Your task to perform on an android device: manage bookmarks in the chrome app Image 0: 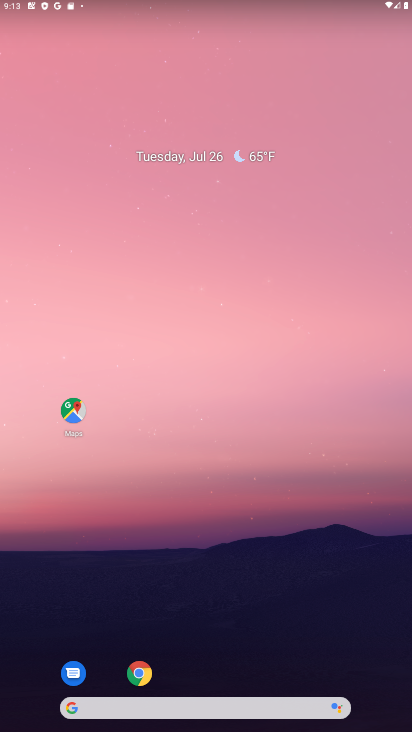
Step 0: click (139, 672)
Your task to perform on an android device: manage bookmarks in the chrome app Image 1: 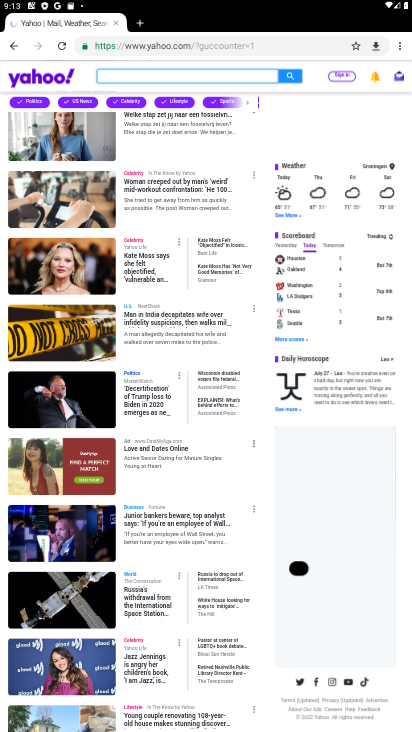
Step 1: click (398, 50)
Your task to perform on an android device: manage bookmarks in the chrome app Image 2: 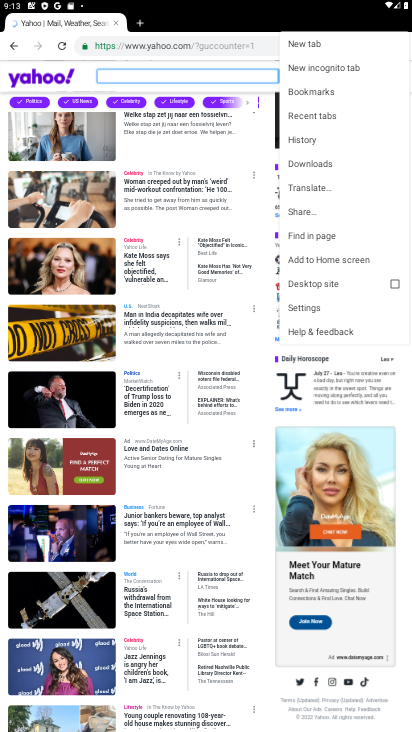
Step 2: click (305, 87)
Your task to perform on an android device: manage bookmarks in the chrome app Image 3: 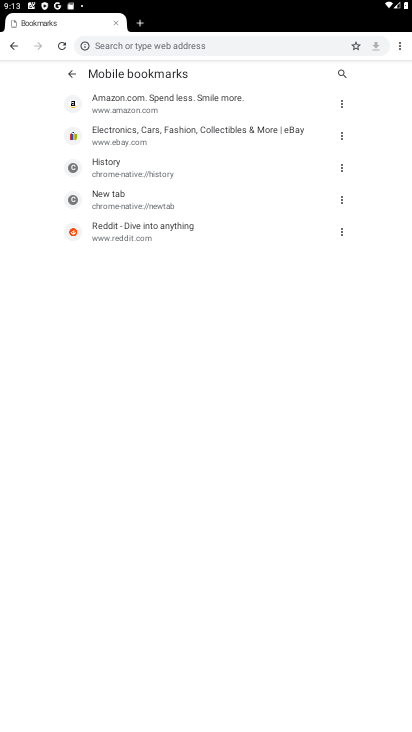
Step 3: click (105, 130)
Your task to perform on an android device: manage bookmarks in the chrome app Image 4: 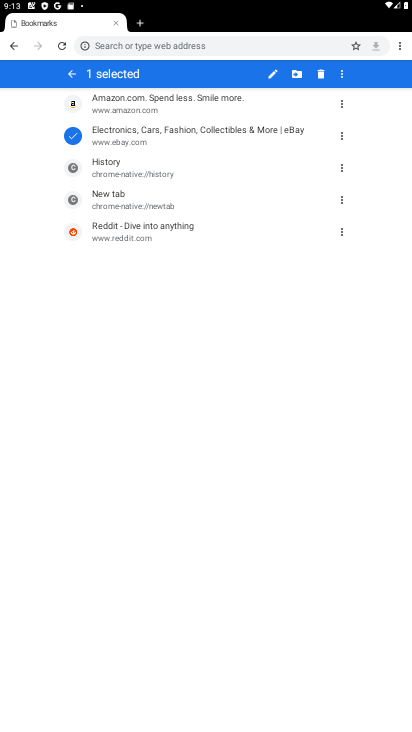
Step 4: click (293, 76)
Your task to perform on an android device: manage bookmarks in the chrome app Image 5: 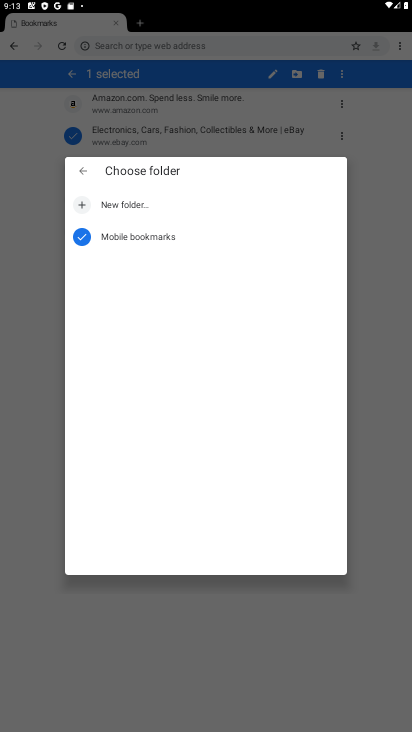
Step 5: click (84, 207)
Your task to perform on an android device: manage bookmarks in the chrome app Image 6: 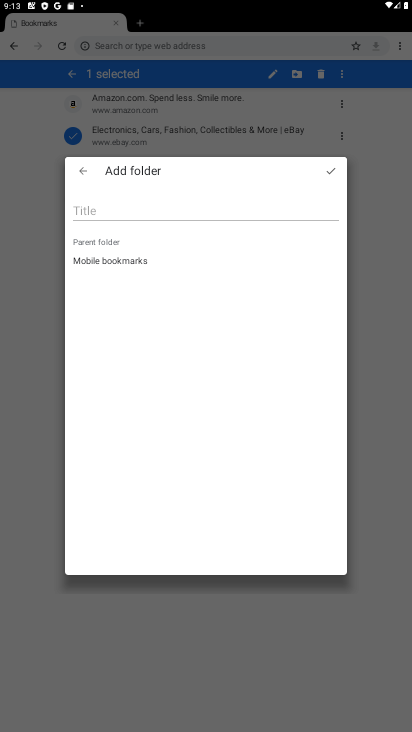
Step 6: click (89, 216)
Your task to perform on an android device: manage bookmarks in the chrome app Image 7: 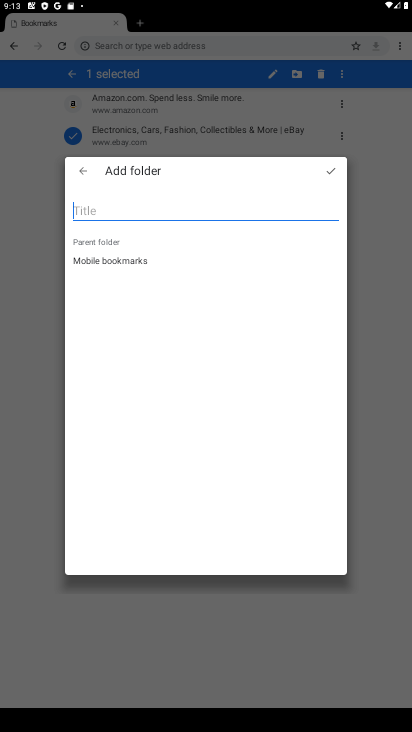
Step 7: type "uiiuuhf"
Your task to perform on an android device: manage bookmarks in the chrome app Image 8: 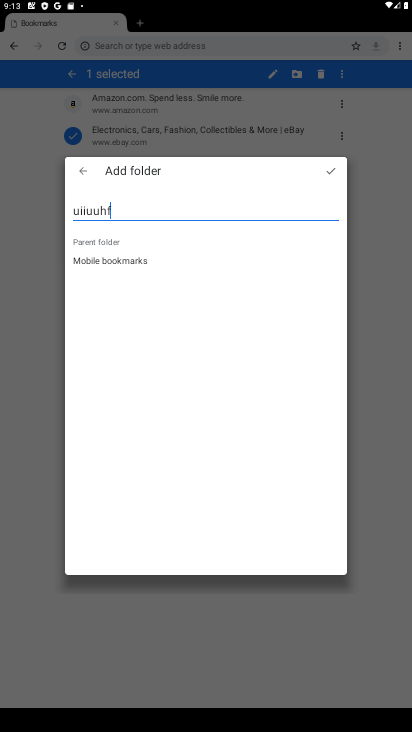
Step 8: click (332, 172)
Your task to perform on an android device: manage bookmarks in the chrome app Image 9: 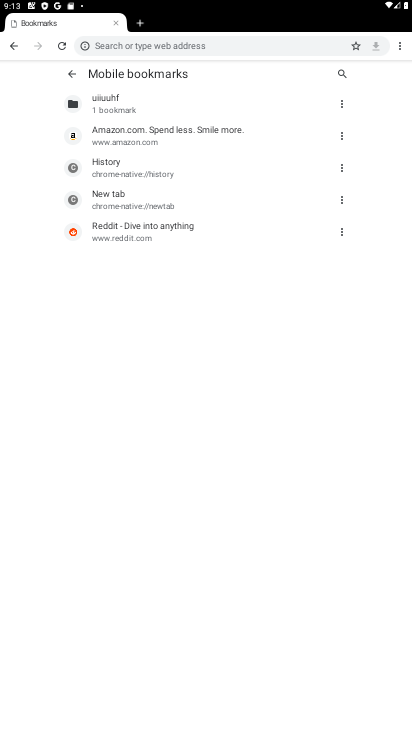
Step 9: task complete